Your task to perform on an android device: toggle priority inbox in the gmail app Image 0: 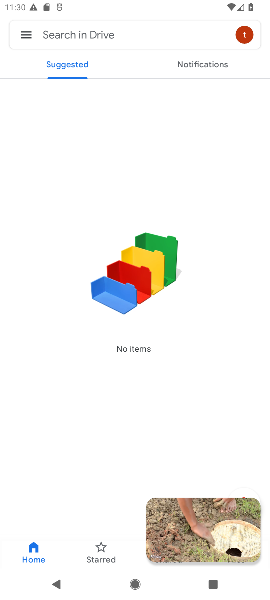
Step 0: click (205, 532)
Your task to perform on an android device: toggle priority inbox in the gmail app Image 1: 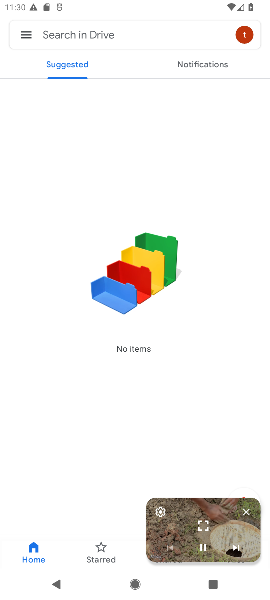
Step 1: click (245, 510)
Your task to perform on an android device: toggle priority inbox in the gmail app Image 2: 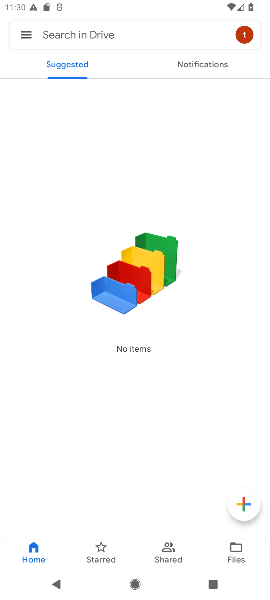
Step 2: press home button
Your task to perform on an android device: toggle priority inbox in the gmail app Image 3: 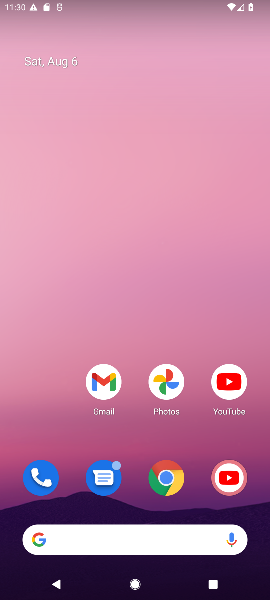
Step 3: click (108, 386)
Your task to perform on an android device: toggle priority inbox in the gmail app Image 4: 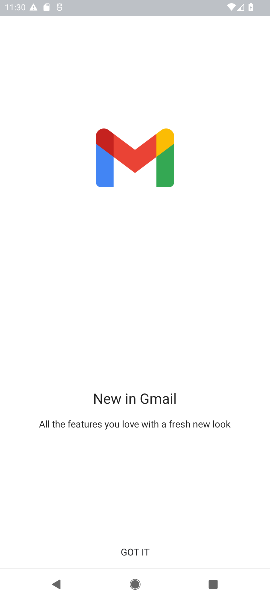
Step 4: click (131, 553)
Your task to perform on an android device: toggle priority inbox in the gmail app Image 5: 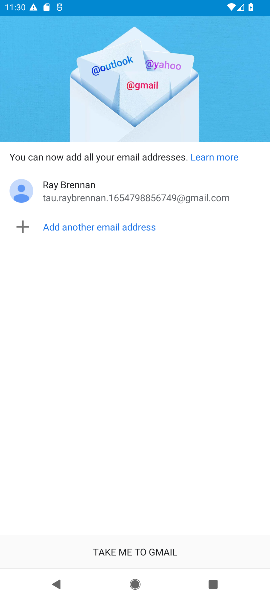
Step 5: click (131, 550)
Your task to perform on an android device: toggle priority inbox in the gmail app Image 6: 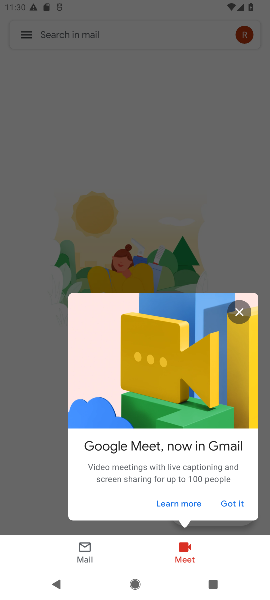
Step 6: click (236, 312)
Your task to perform on an android device: toggle priority inbox in the gmail app Image 7: 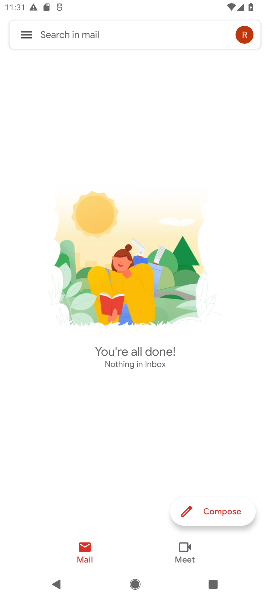
Step 7: click (29, 37)
Your task to perform on an android device: toggle priority inbox in the gmail app Image 8: 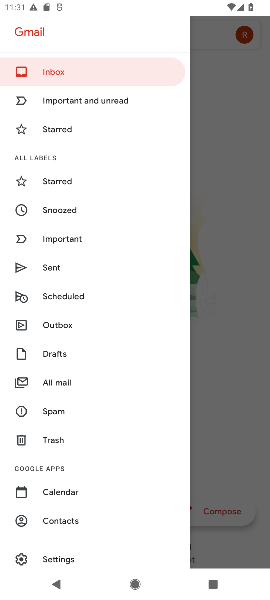
Step 8: click (62, 556)
Your task to perform on an android device: toggle priority inbox in the gmail app Image 9: 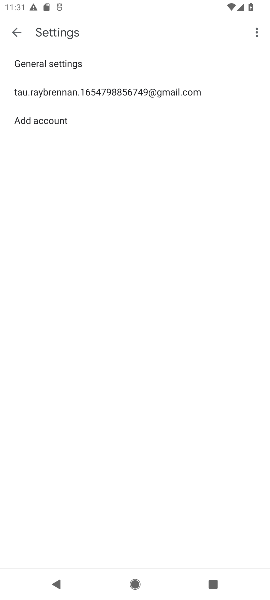
Step 9: click (58, 90)
Your task to perform on an android device: toggle priority inbox in the gmail app Image 10: 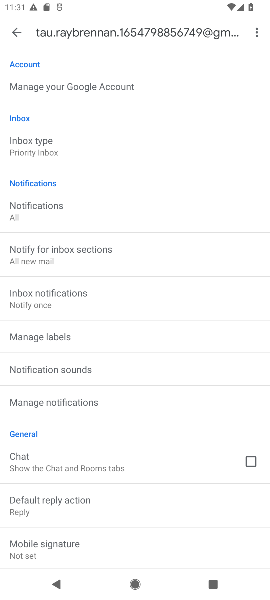
Step 10: click (28, 151)
Your task to perform on an android device: toggle priority inbox in the gmail app Image 11: 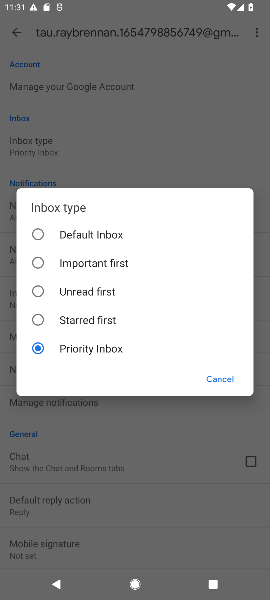
Step 11: click (90, 257)
Your task to perform on an android device: toggle priority inbox in the gmail app Image 12: 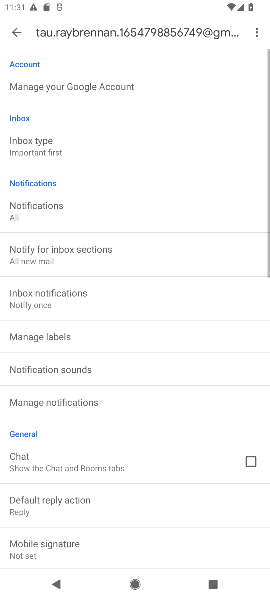
Step 12: task complete